Your task to perform on an android device: change the clock display to digital Image 0: 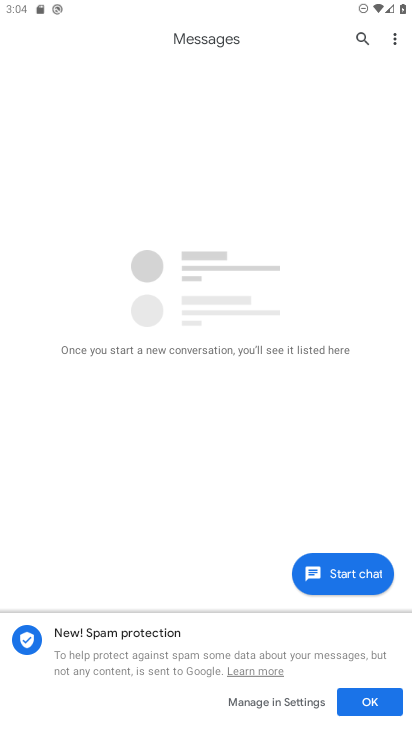
Step 0: press home button
Your task to perform on an android device: change the clock display to digital Image 1: 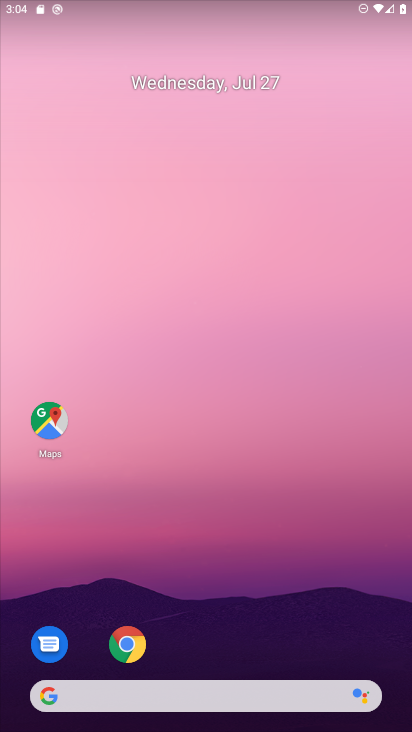
Step 1: drag from (218, 492) to (254, 277)
Your task to perform on an android device: change the clock display to digital Image 2: 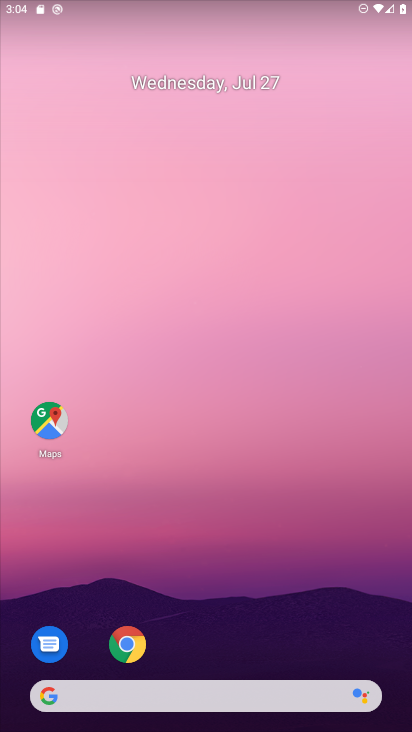
Step 2: drag from (207, 613) to (239, 11)
Your task to perform on an android device: change the clock display to digital Image 3: 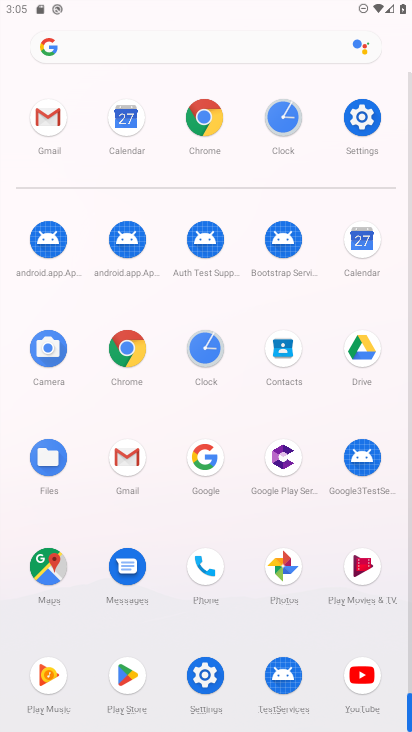
Step 3: click (210, 348)
Your task to perform on an android device: change the clock display to digital Image 4: 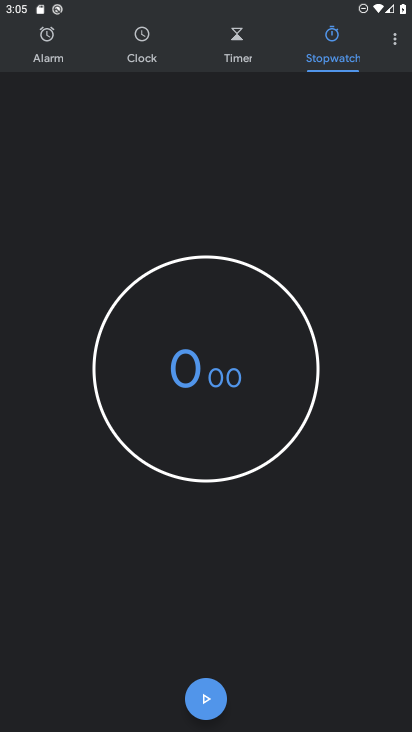
Step 4: click (394, 41)
Your task to perform on an android device: change the clock display to digital Image 5: 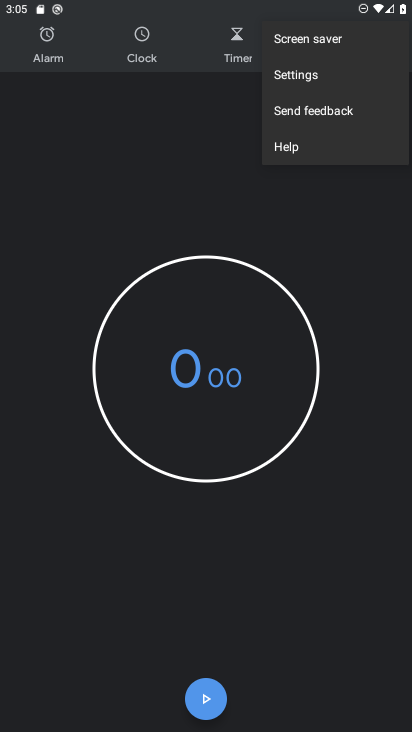
Step 5: click (305, 77)
Your task to perform on an android device: change the clock display to digital Image 6: 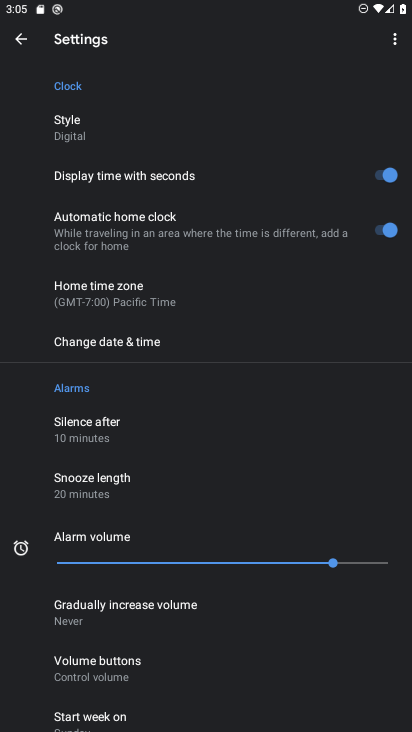
Step 6: click (91, 134)
Your task to perform on an android device: change the clock display to digital Image 7: 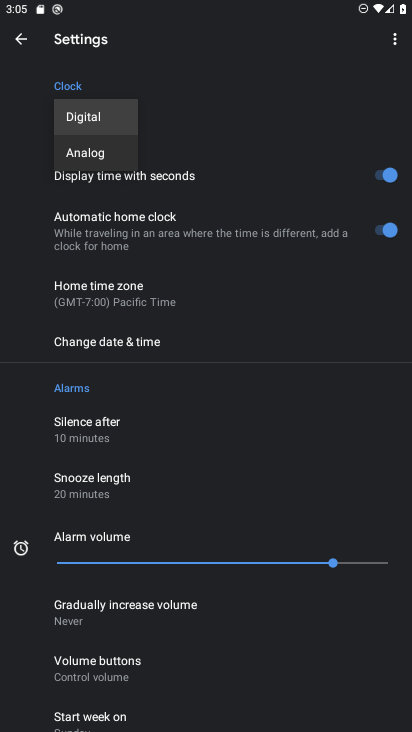
Step 7: task complete